Your task to perform on an android device: Open accessibility settings Image 0: 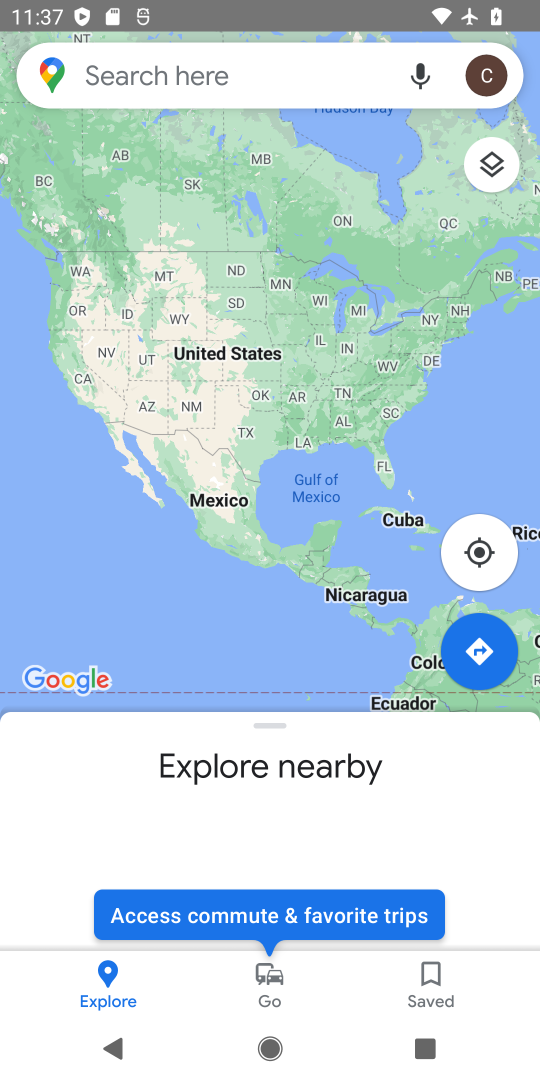
Step 0: press home button
Your task to perform on an android device: Open accessibility settings Image 1: 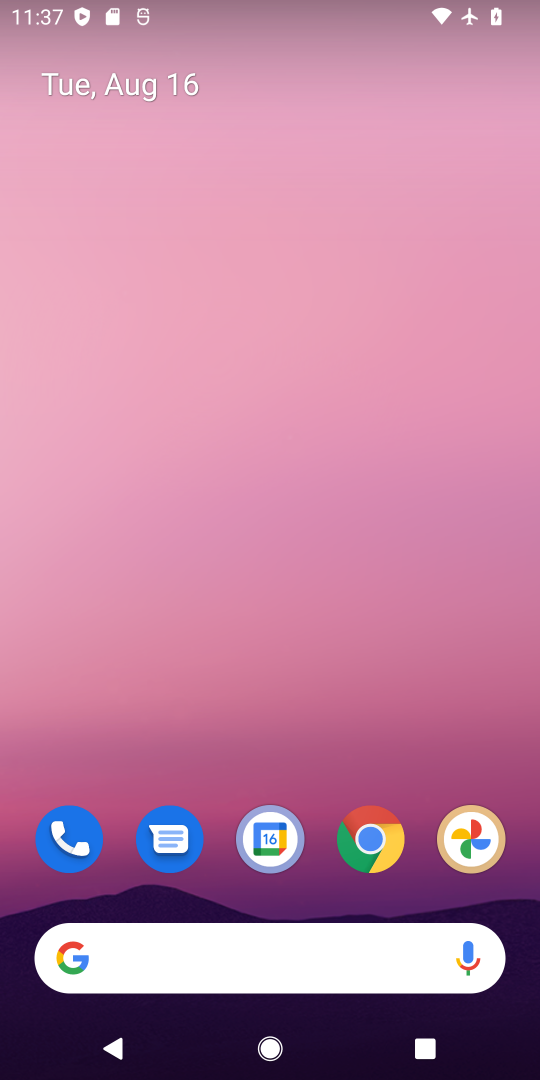
Step 1: drag from (271, 911) to (272, 7)
Your task to perform on an android device: Open accessibility settings Image 2: 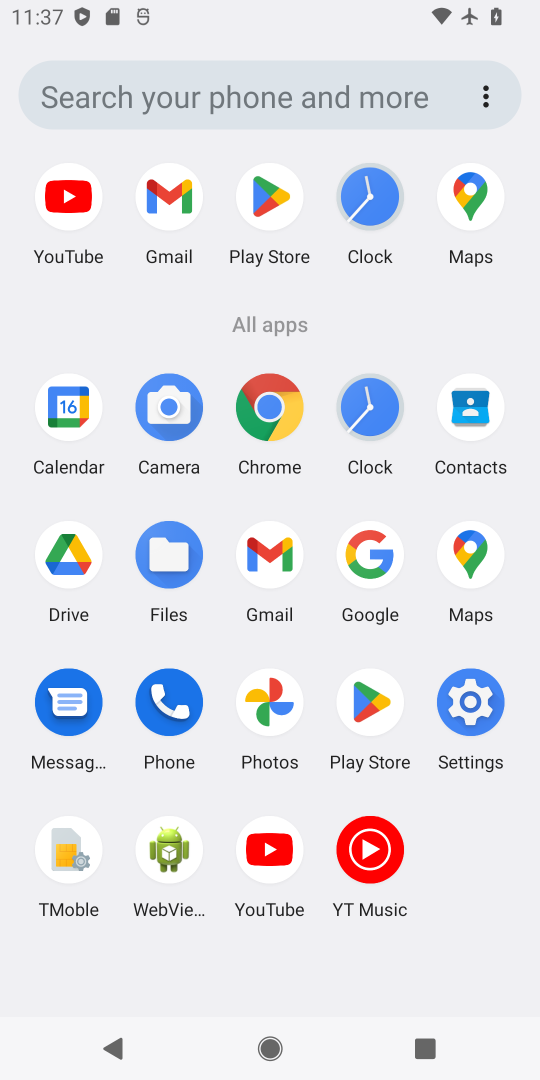
Step 2: click (483, 700)
Your task to perform on an android device: Open accessibility settings Image 3: 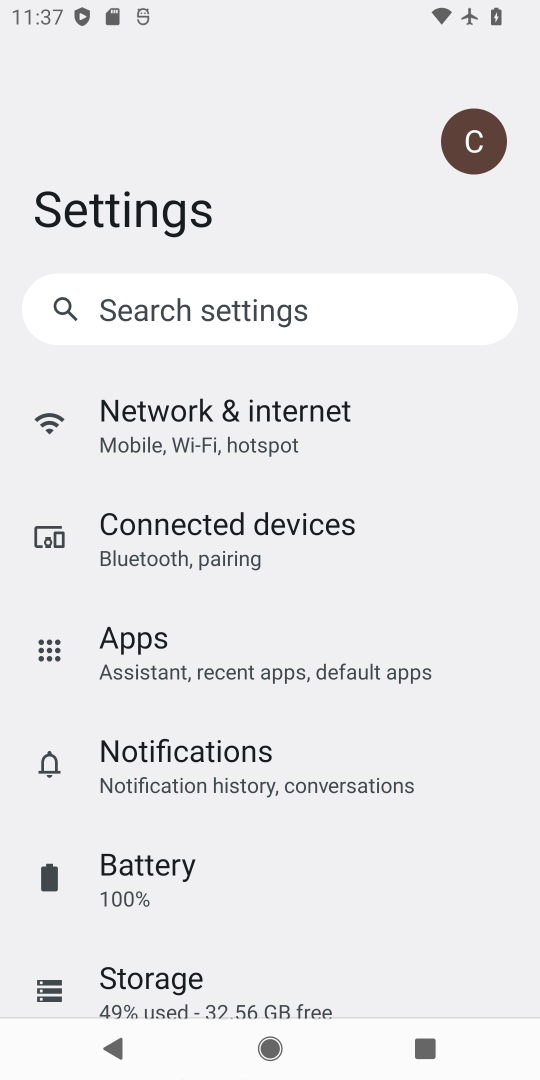
Step 3: drag from (260, 920) to (335, 382)
Your task to perform on an android device: Open accessibility settings Image 4: 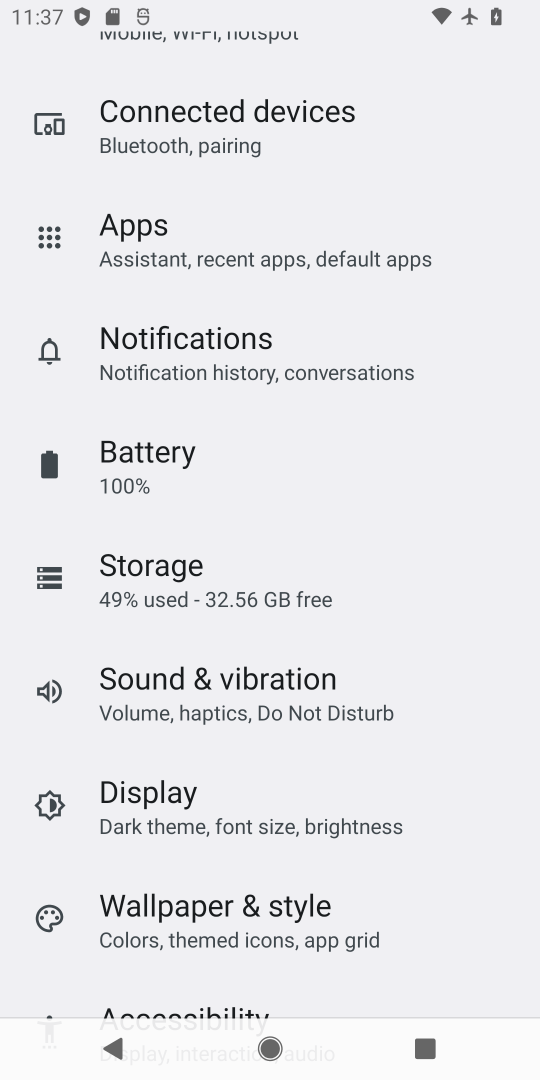
Step 4: drag from (299, 823) to (312, 390)
Your task to perform on an android device: Open accessibility settings Image 5: 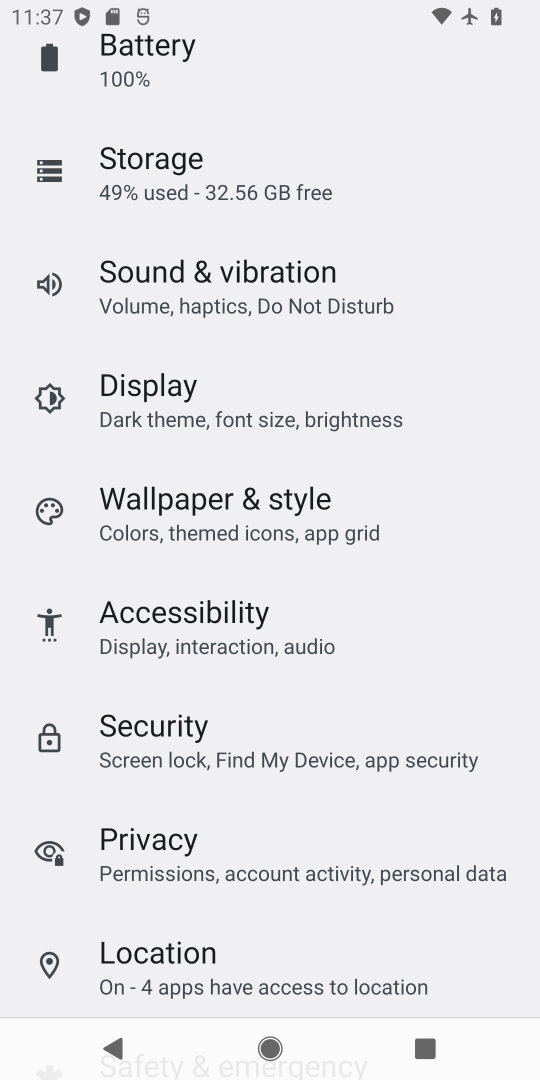
Step 5: click (250, 626)
Your task to perform on an android device: Open accessibility settings Image 6: 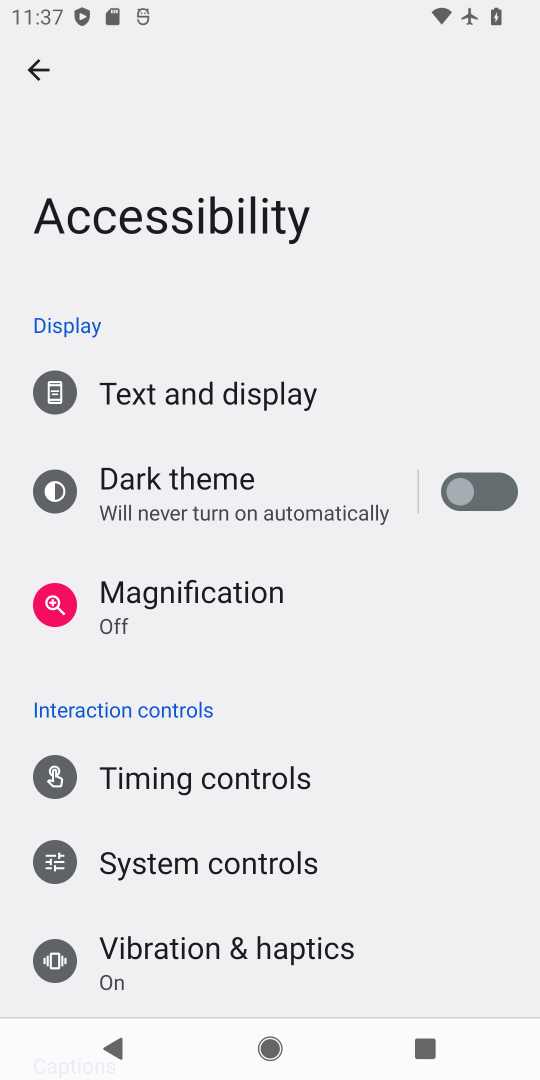
Step 6: task complete